Your task to perform on an android device: toggle data saver in the chrome app Image 0: 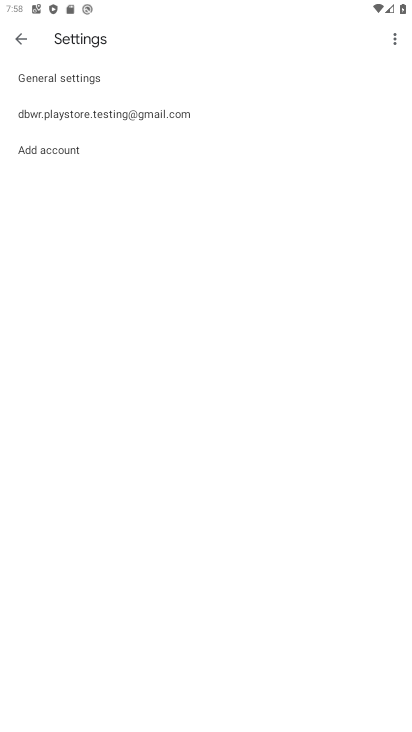
Step 0: click (19, 35)
Your task to perform on an android device: toggle data saver in the chrome app Image 1: 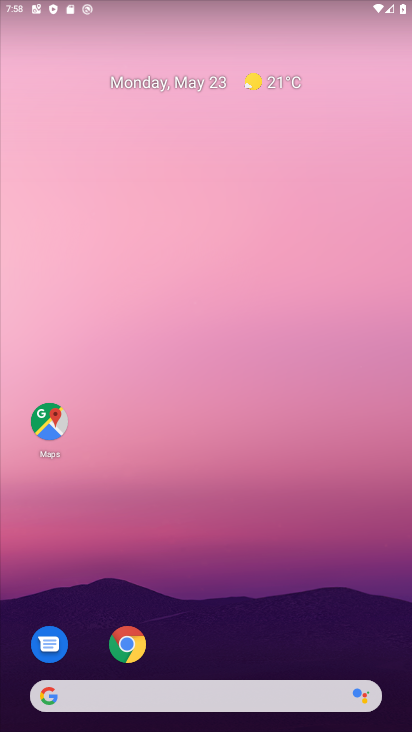
Step 1: click (134, 652)
Your task to perform on an android device: toggle data saver in the chrome app Image 2: 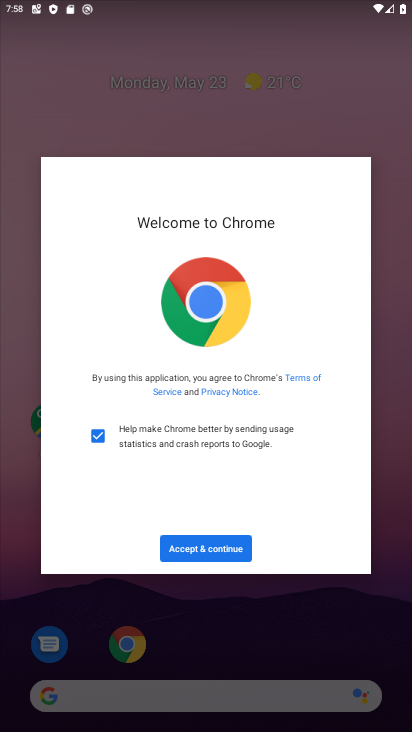
Step 2: click (224, 547)
Your task to perform on an android device: toggle data saver in the chrome app Image 3: 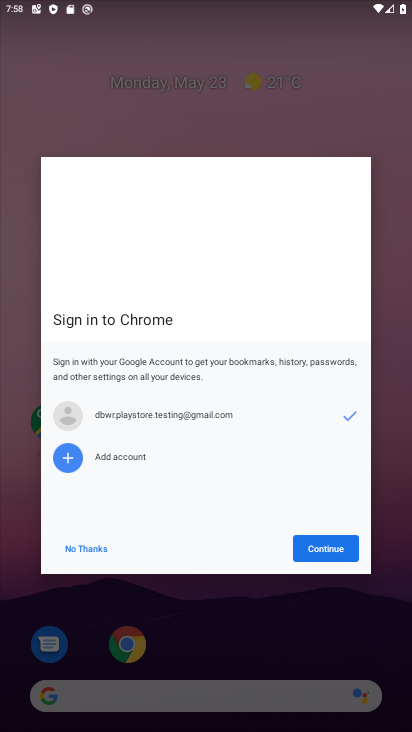
Step 3: click (307, 541)
Your task to perform on an android device: toggle data saver in the chrome app Image 4: 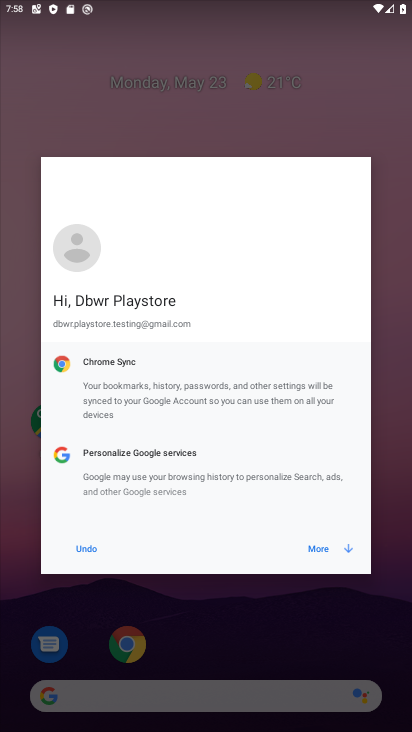
Step 4: click (325, 548)
Your task to perform on an android device: toggle data saver in the chrome app Image 5: 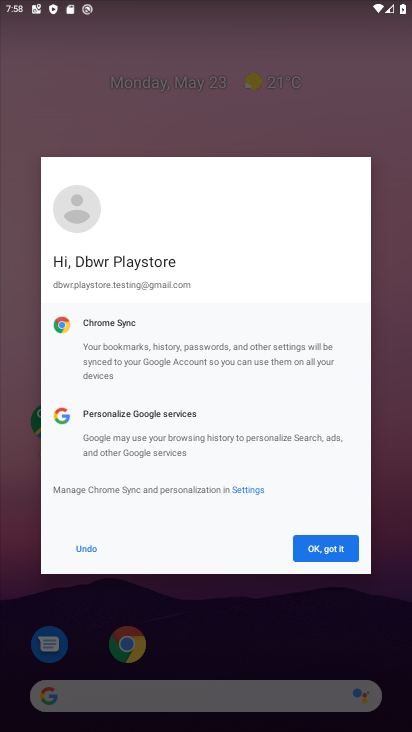
Step 5: click (341, 551)
Your task to perform on an android device: toggle data saver in the chrome app Image 6: 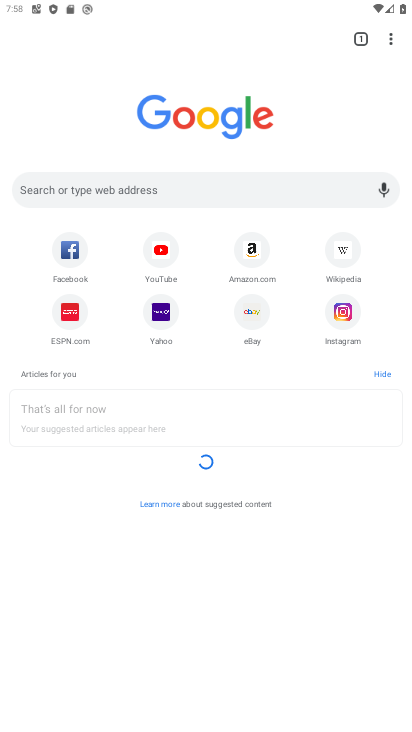
Step 6: click (394, 31)
Your task to perform on an android device: toggle data saver in the chrome app Image 7: 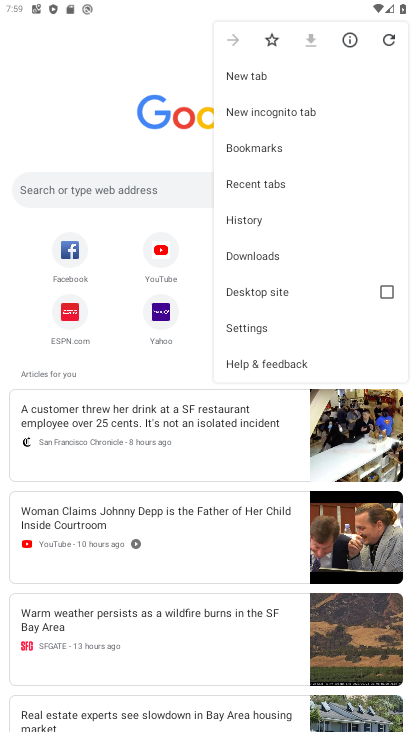
Step 7: click (264, 326)
Your task to perform on an android device: toggle data saver in the chrome app Image 8: 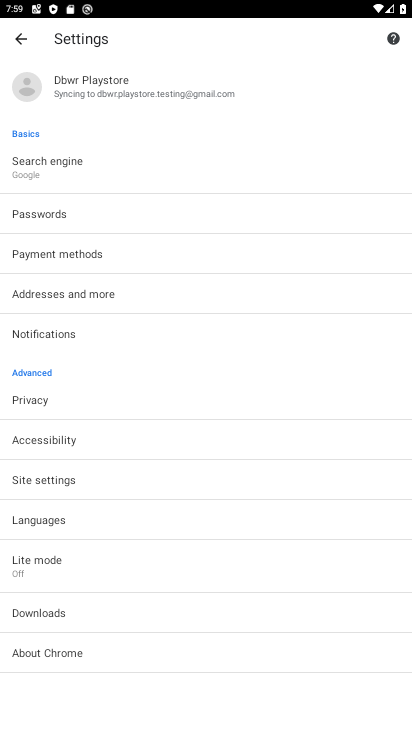
Step 8: click (12, 569)
Your task to perform on an android device: toggle data saver in the chrome app Image 9: 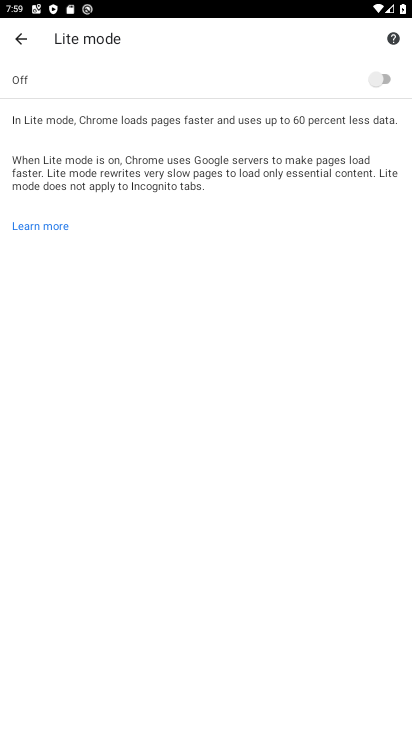
Step 9: click (384, 73)
Your task to perform on an android device: toggle data saver in the chrome app Image 10: 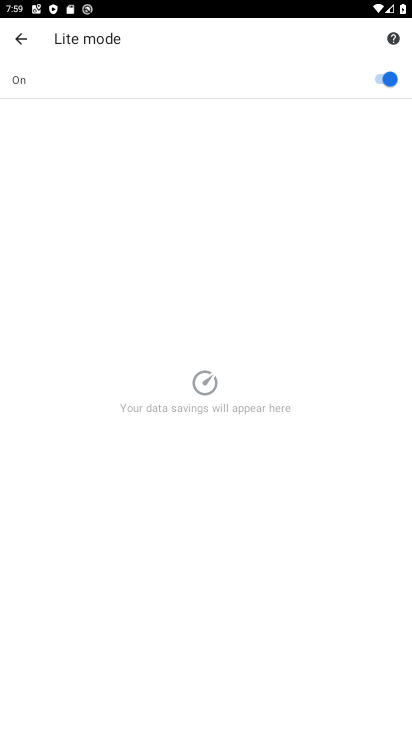
Step 10: task complete